Your task to perform on an android device: open a bookmark in the chrome app Image 0: 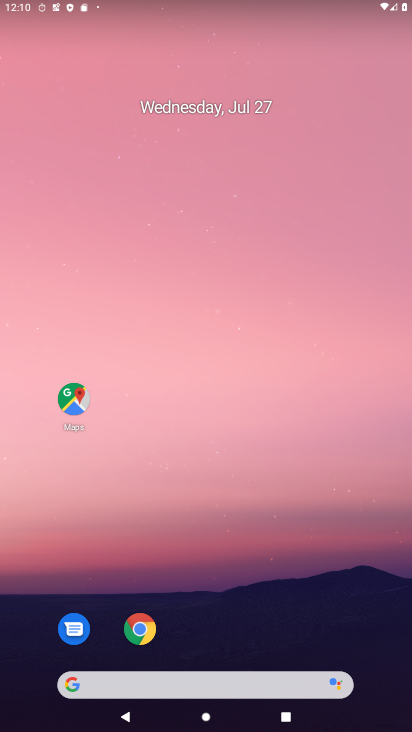
Step 0: drag from (362, 664) to (174, 133)
Your task to perform on an android device: open a bookmark in the chrome app Image 1: 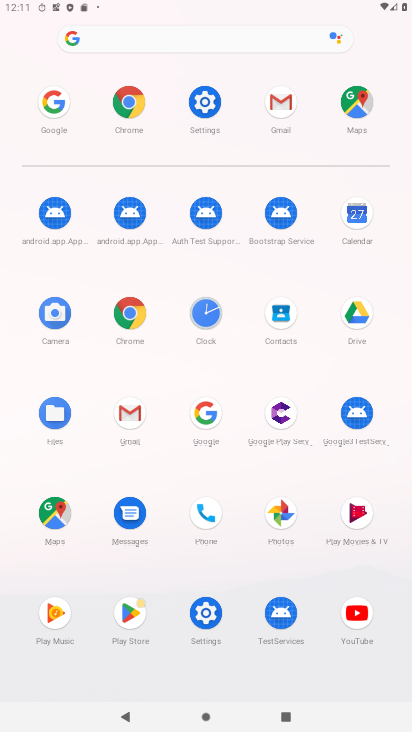
Step 1: click (131, 320)
Your task to perform on an android device: open a bookmark in the chrome app Image 2: 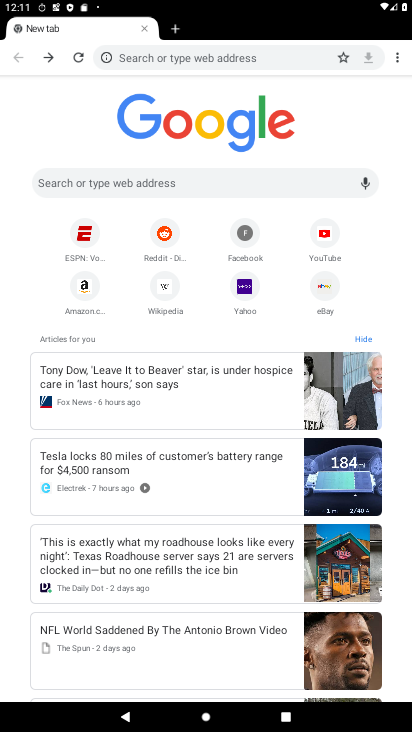
Step 2: click (397, 59)
Your task to perform on an android device: open a bookmark in the chrome app Image 3: 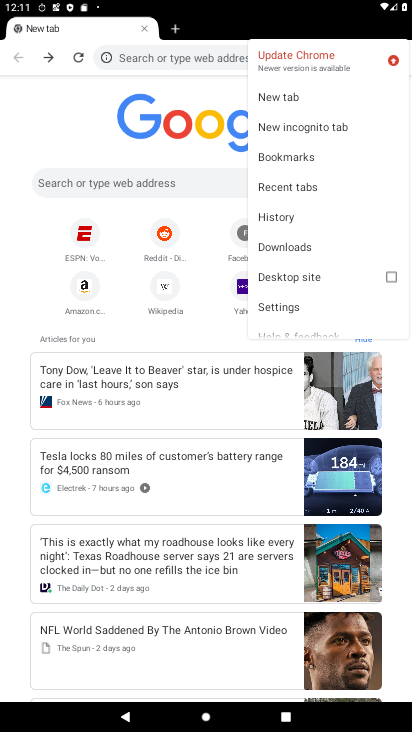
Step 3: click (281, 155)
Your task to perform on an android device: open a bookmark in the chrome app Image 4: 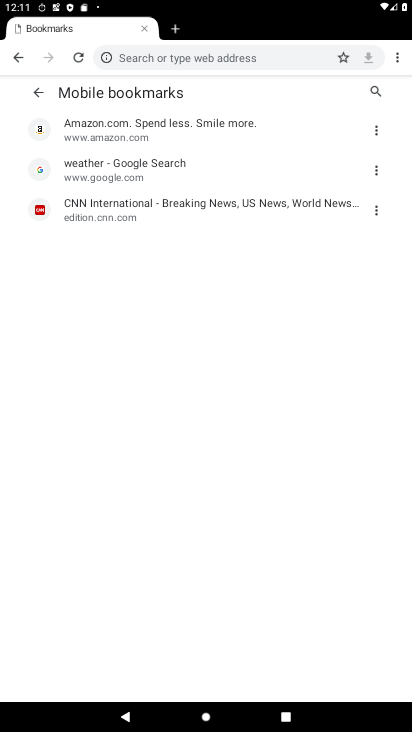
Step 4: task complete